Your task to perform on an android device: open app "Walmart Shopping & Grocery" (install if not already installed) Image 0: 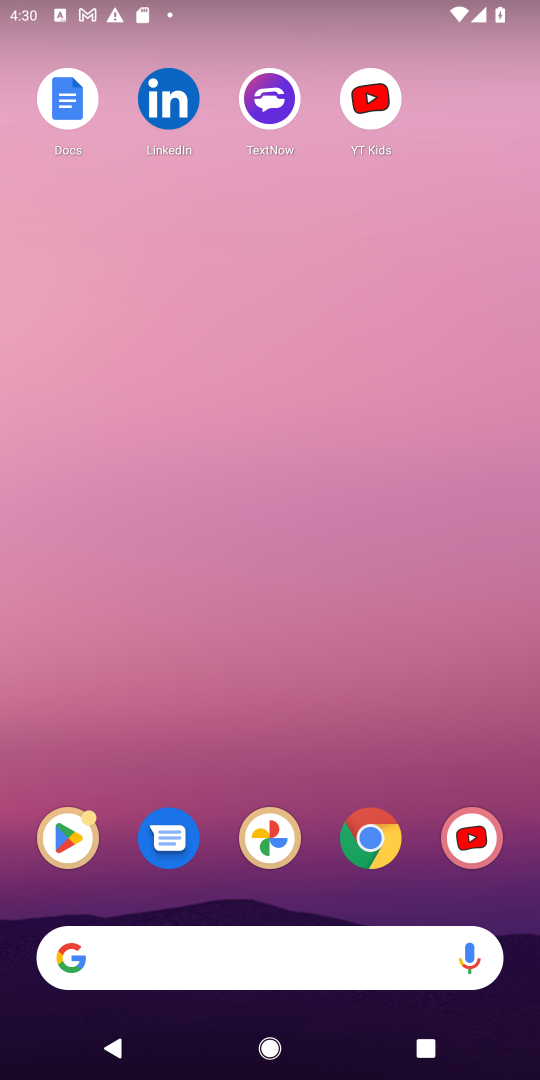
Step 0: click (49, 845)
Your task to perform on an android device: open app "Walmart Shopping & Grocery" (install if not already installed) Image 1: 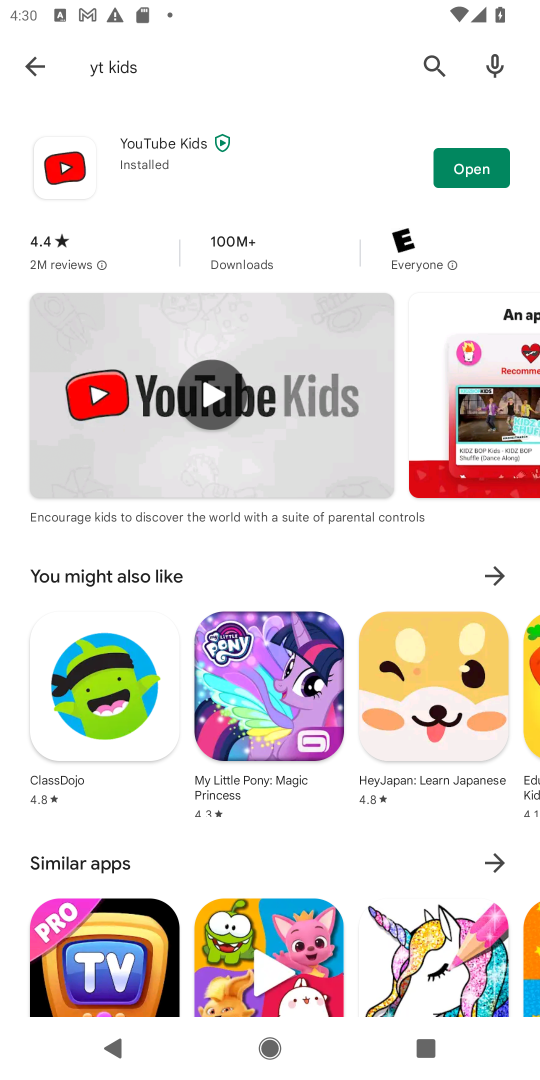
Step 1: click (436, 60)
Your task to perform on an android device: open app "Walmart Shopping & Grocery" (install if not already installed) Image 2: 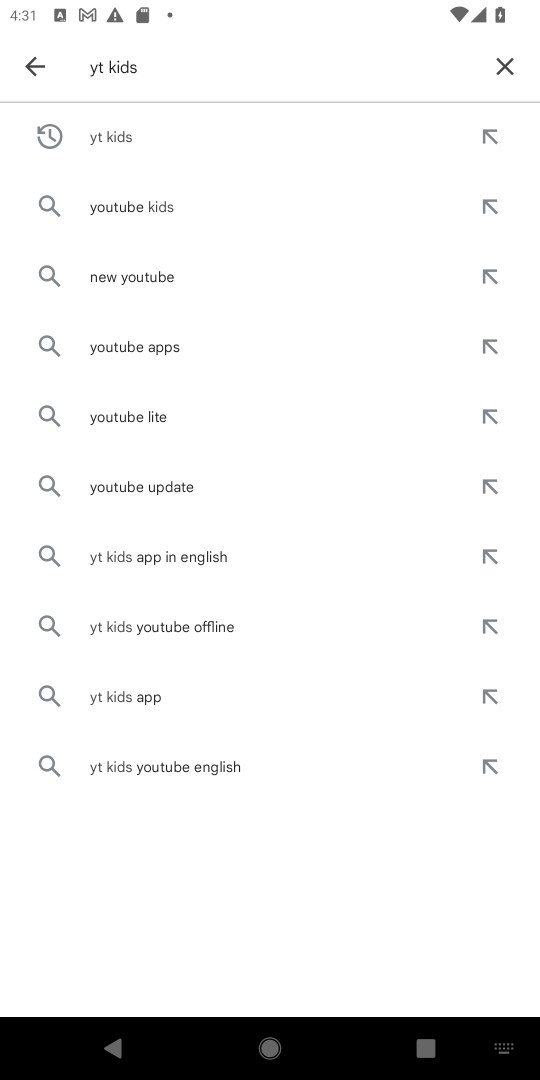
Step 2: click (502, 61)
Your task to perform on an android device: open app "Walmart Shopping & Grocery" (install if not already installed) Image 3: 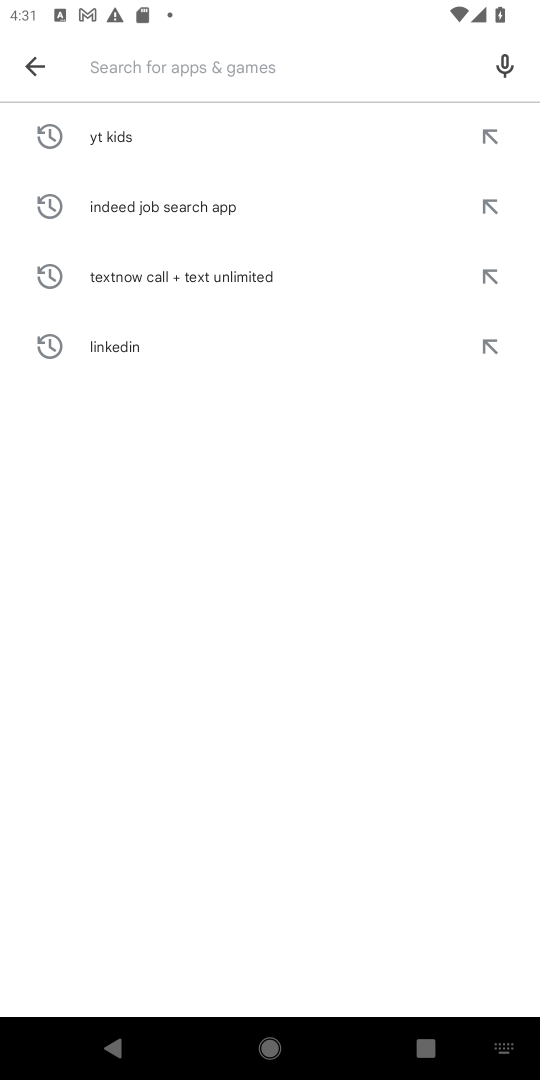
Step 3: type "walmart"
Your task to perform on an android device: open app "Walmart Shopping & Grocery" (install if not already installed) Image 4: 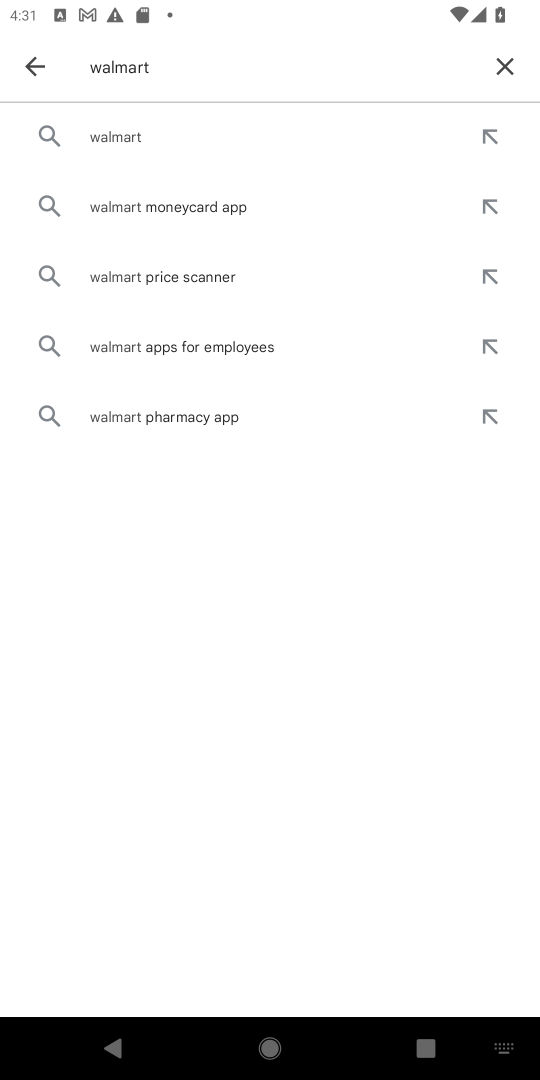
Step 4: click (231, 124)
Your task to perform on an android device: open app "Walmart Shopping & Grocery" (install if not already installed) Image 5: 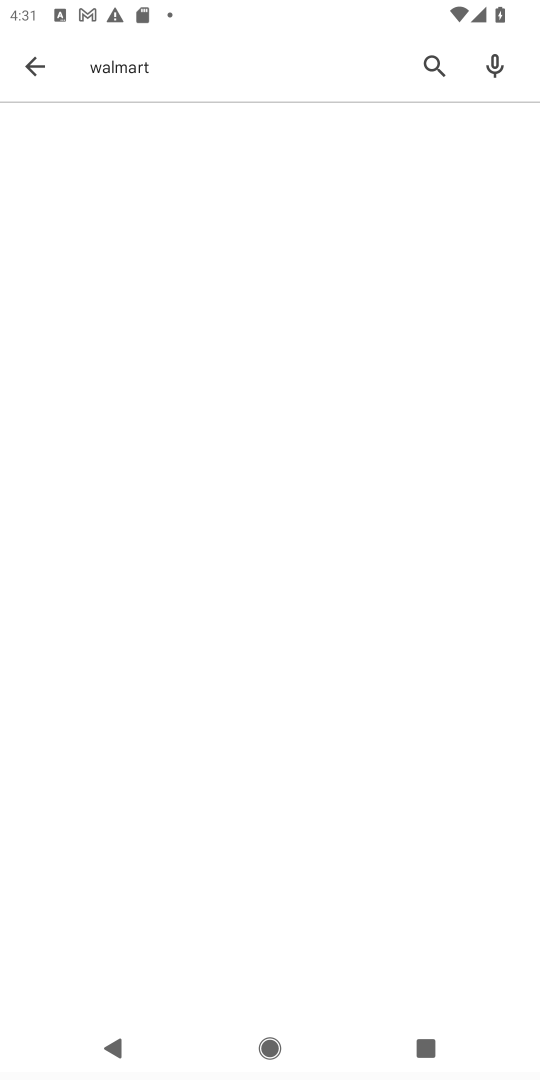
Step 5: click (231, 124)
Your task to perform on an android device: open app "Walmart Shopping & Grocery" (install if not already installed) Image 6: 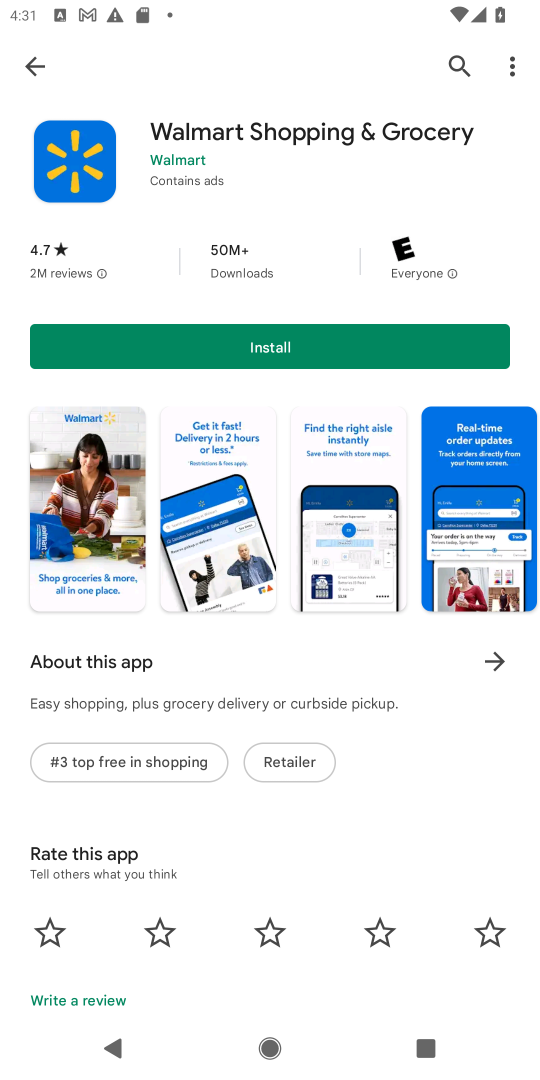
Step 6: click (388, 355)
Your task to perform on an android device: open app "Walmart Shopping & Grocery" (install if not already installed) Image 7: 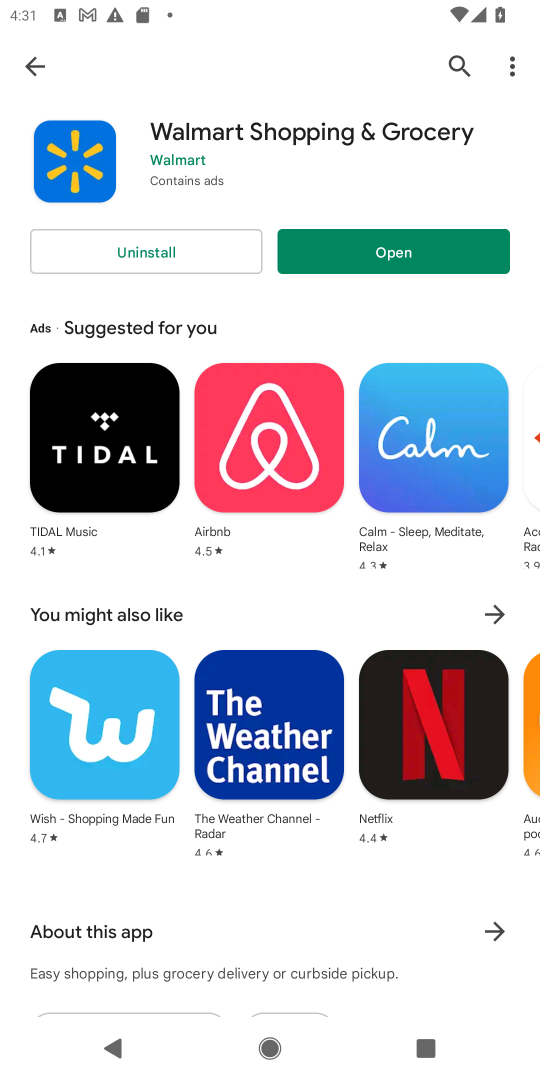
Step 7: click (417, 256)
Your task to perform on an android device: open app "Walmart Shopping & Grocery" (install if not already installed) Image 8: 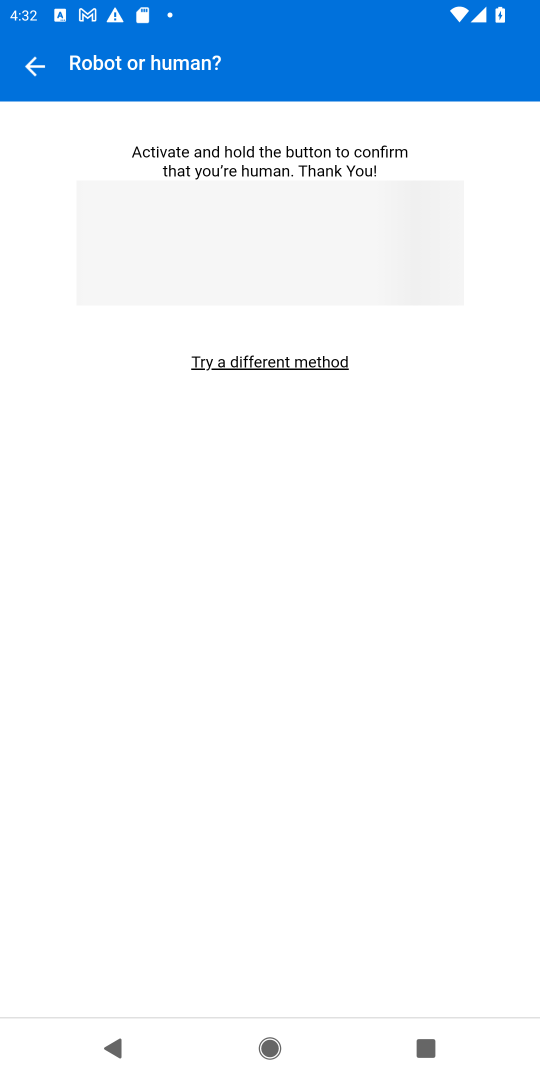
Step 8: task complete